Your task to perform on an android device: Go to settings Image 0: 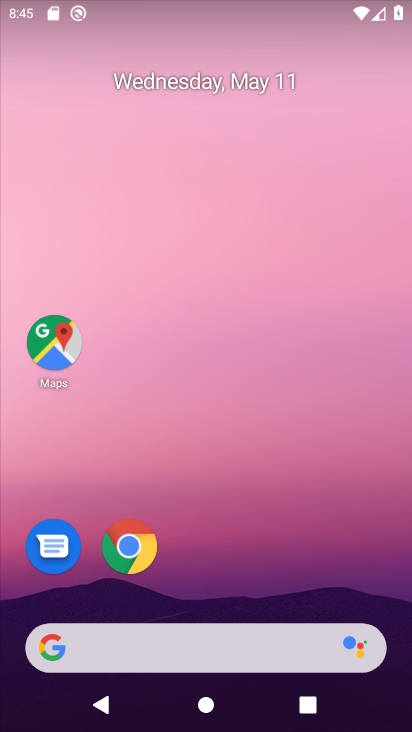
Step 0: drag from (303, 555) to (257, 265)
Your task to perform on an android device: Go to settings Image 1: 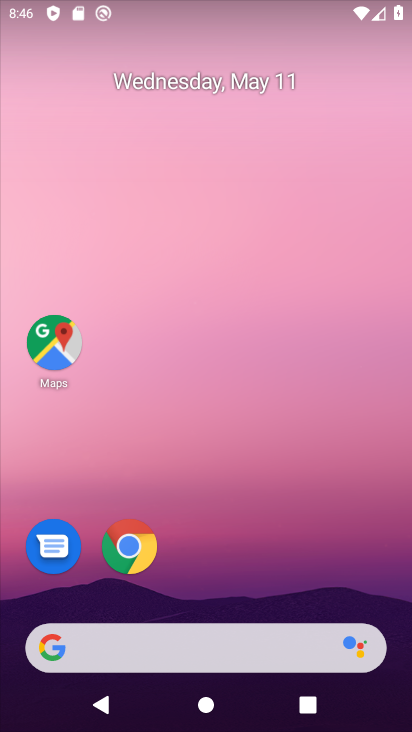
Step 1: drag from (317, 582) to (269, 176)
Your task to perform on an android device: Go to settings Image 2: 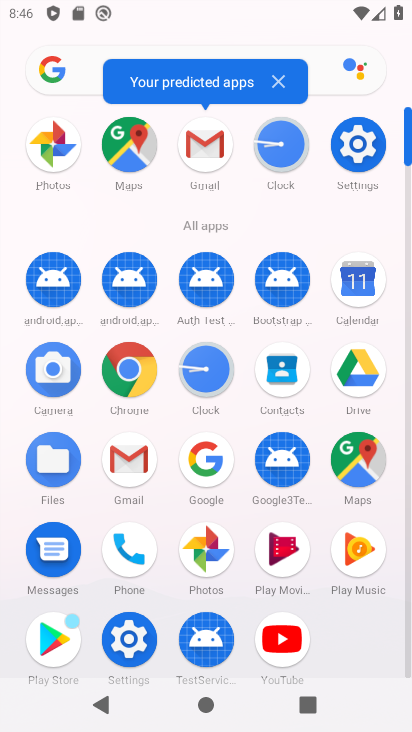
Step 2: click (353, 142)
Your task to perform on an android device: Go to settings Image 3: 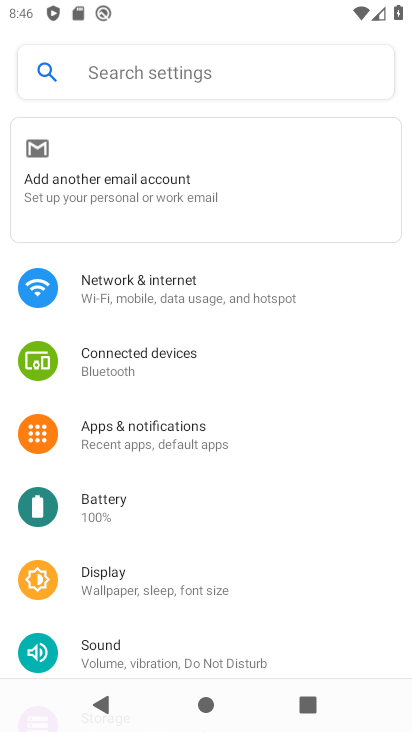
Step 3: task complete